Your task to perform on an android device: toggle javascript in the chrome app Image 0: 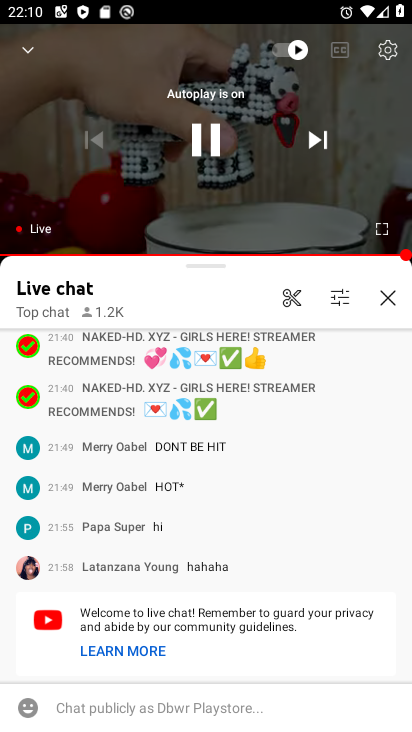
Step 0: press home button
Your task to perform on an android device: toggle javascript in the chrome app Image 1: 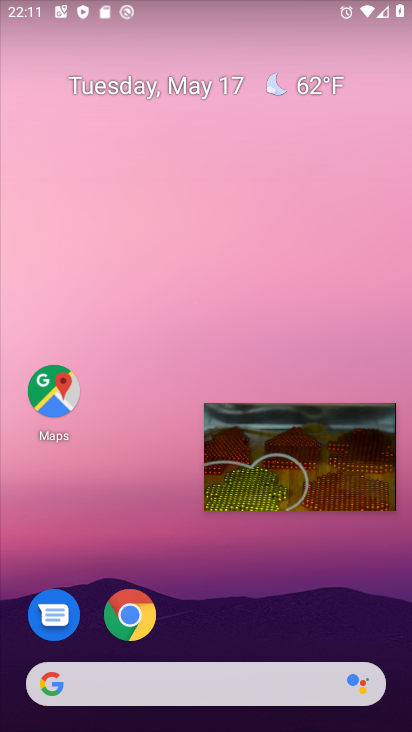
Step 1: click (250, 454)
Your task to perform on an android device: toggle javascript in the chrome app Image 2: 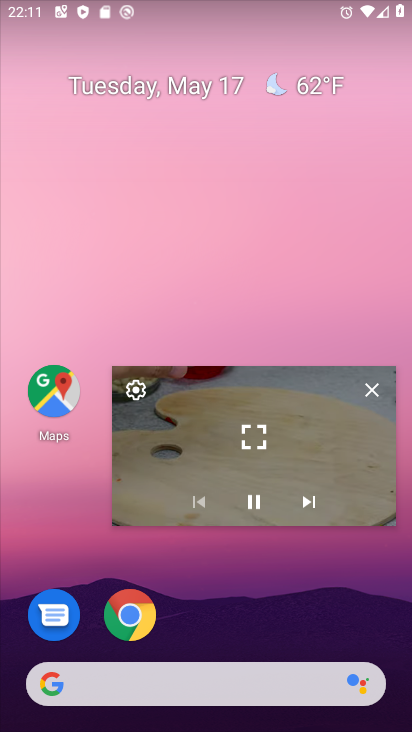
Step 2: click (374, 390)
Your task to perform on an android device: toggle javascript in the chrome app Image 3: 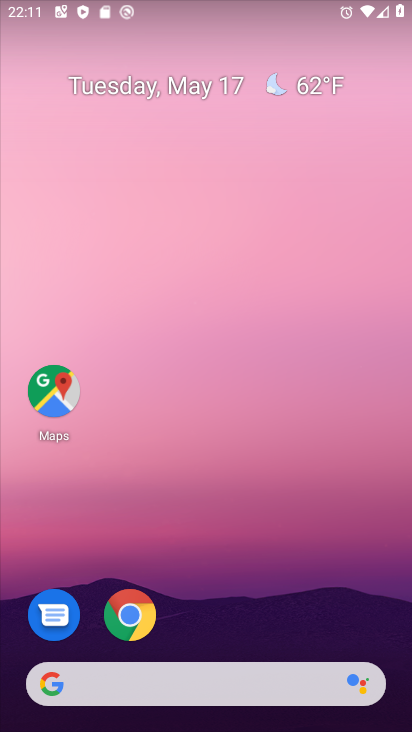
Step 3: press home button
Your task to perform on an android device: toggle javascript in the chrome app Image 4: 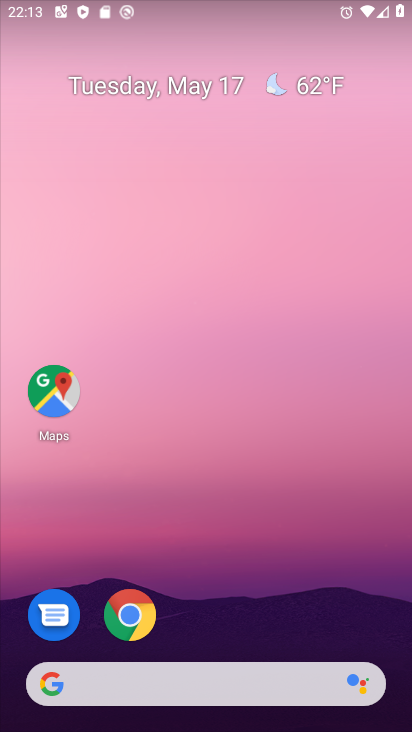
Step 4: click (116, 624)
Your task to perform on an android device: toggle javascript in the chrome app Image 5: 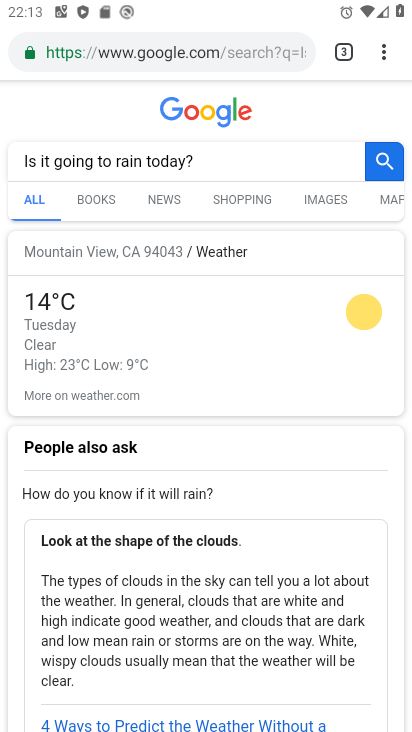
Step 5: drag from (388, 46) to (170, 572)
Your task to perform on an android device: toggle javascript in the chrome app Image 6: 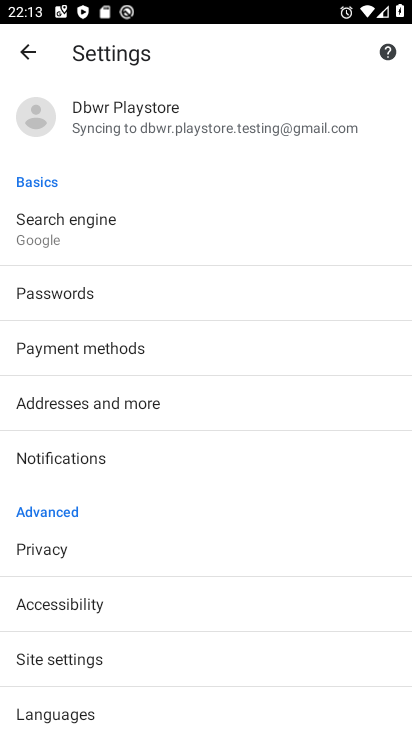
Step 6: click (68, 656)
Your task to perform on an android device: toggle javascript in the chrome app Image 7: 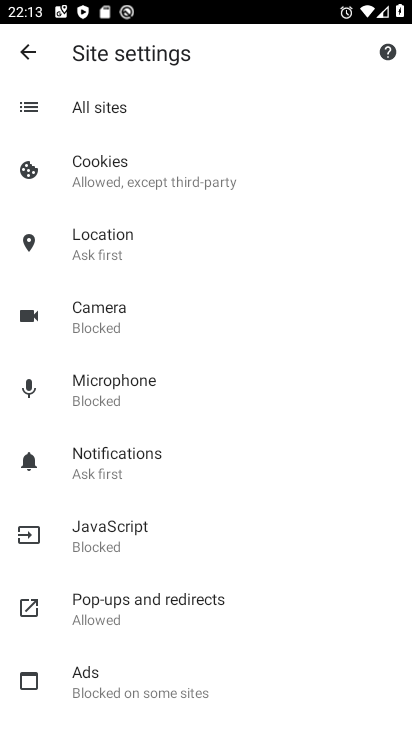
Step 7: click (106, 539)
Your task to perform on an android device: toggle javascript in the chrome app Image 8: 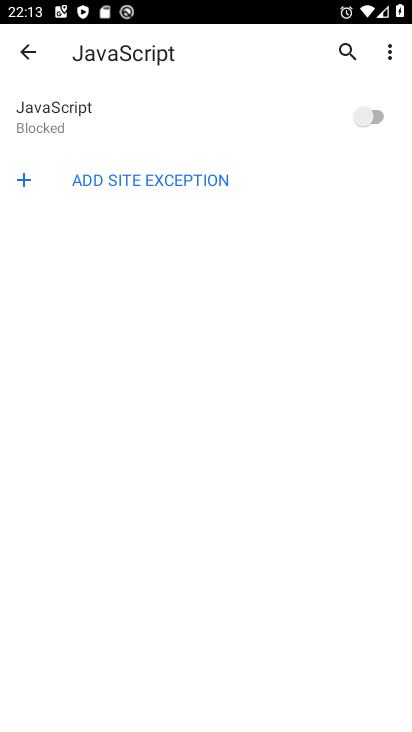
Step 8: click (360, 114)
Your task to perform on an android device: toggle javascript in the chrome app Image 9: 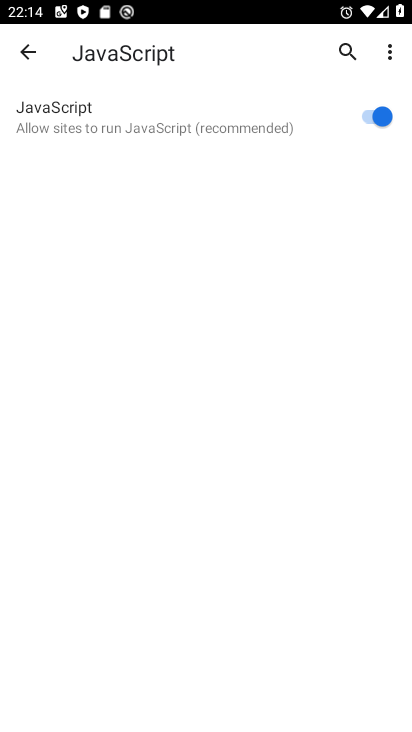
Step 9: task complete